Your task to perform on an android device: Show the shopping cart on walmart. Search for "asus zenbook" on walmart, select the first entry, and add it to the cart. Image 0: 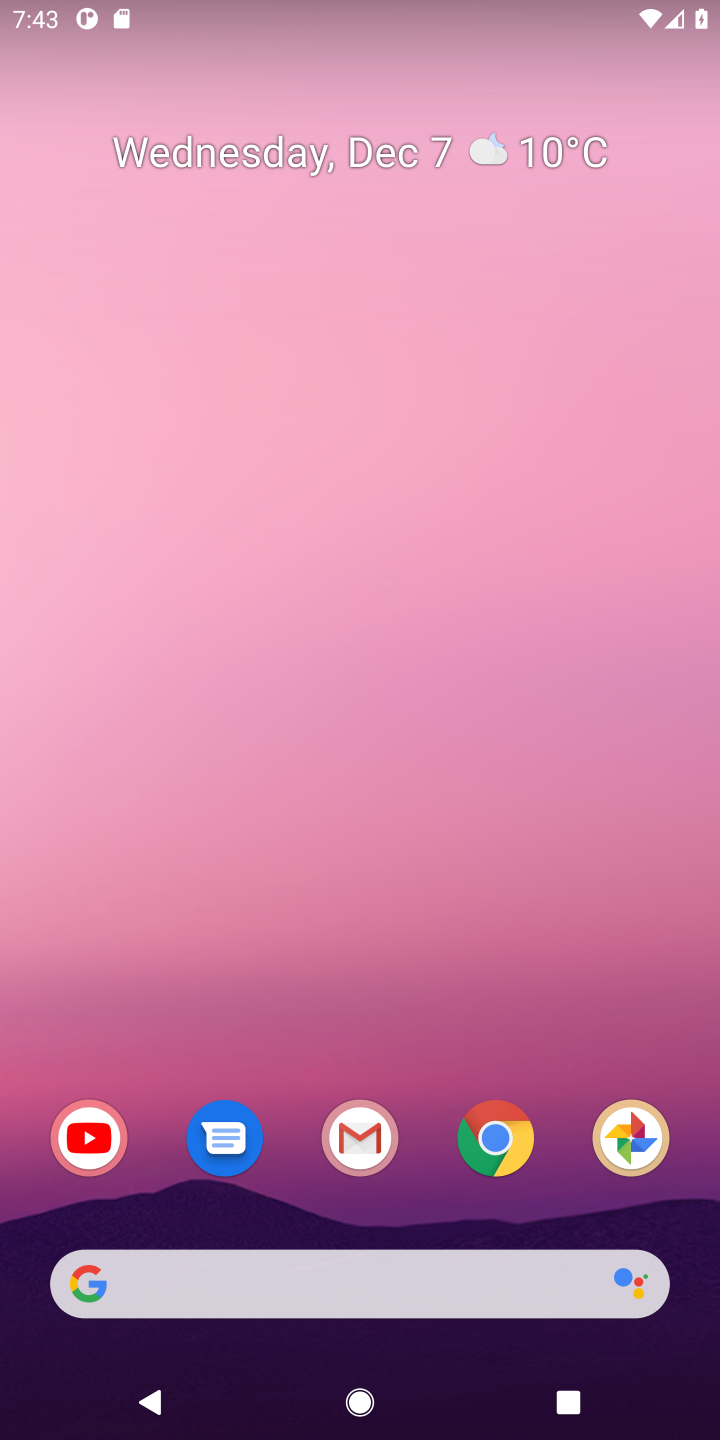
Step 0: click (217, 1275)
Your task to perform on an android device: Show the shopping cart on walmart. Search for "asus zenbook" on walmart, select the first entry, and add it to the cart. Image 1: 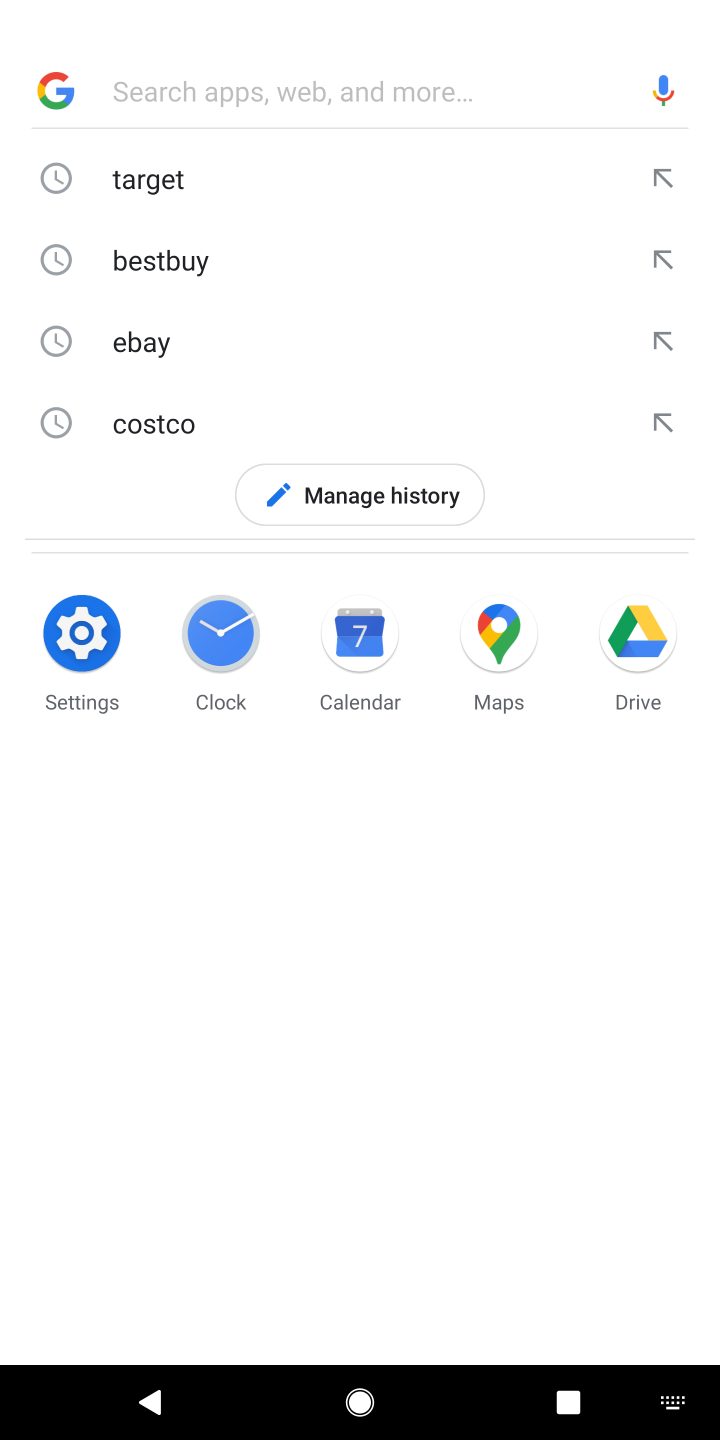
Step 1: type "walmart"
Your task to perform on an android device: Show the shopping cart on walmart. Search for "asus zenbook" on walmart, select the first entry, and add it to the cart. Image 2: 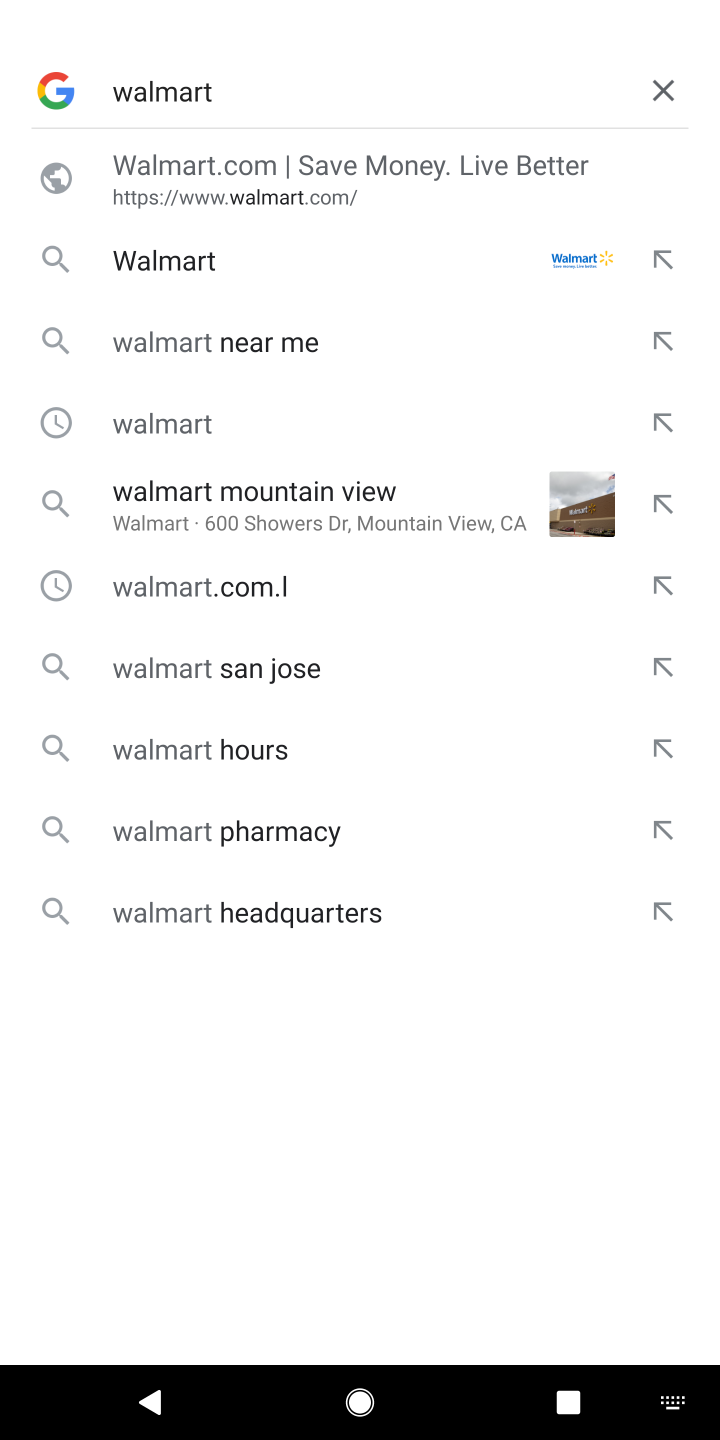
Step 2: press enter
Your task to perform on an android device: Show the shopping cart on walmart. Search for "asus zenbook" on walmart, select the first entry, and add it to the cart. Image 3: 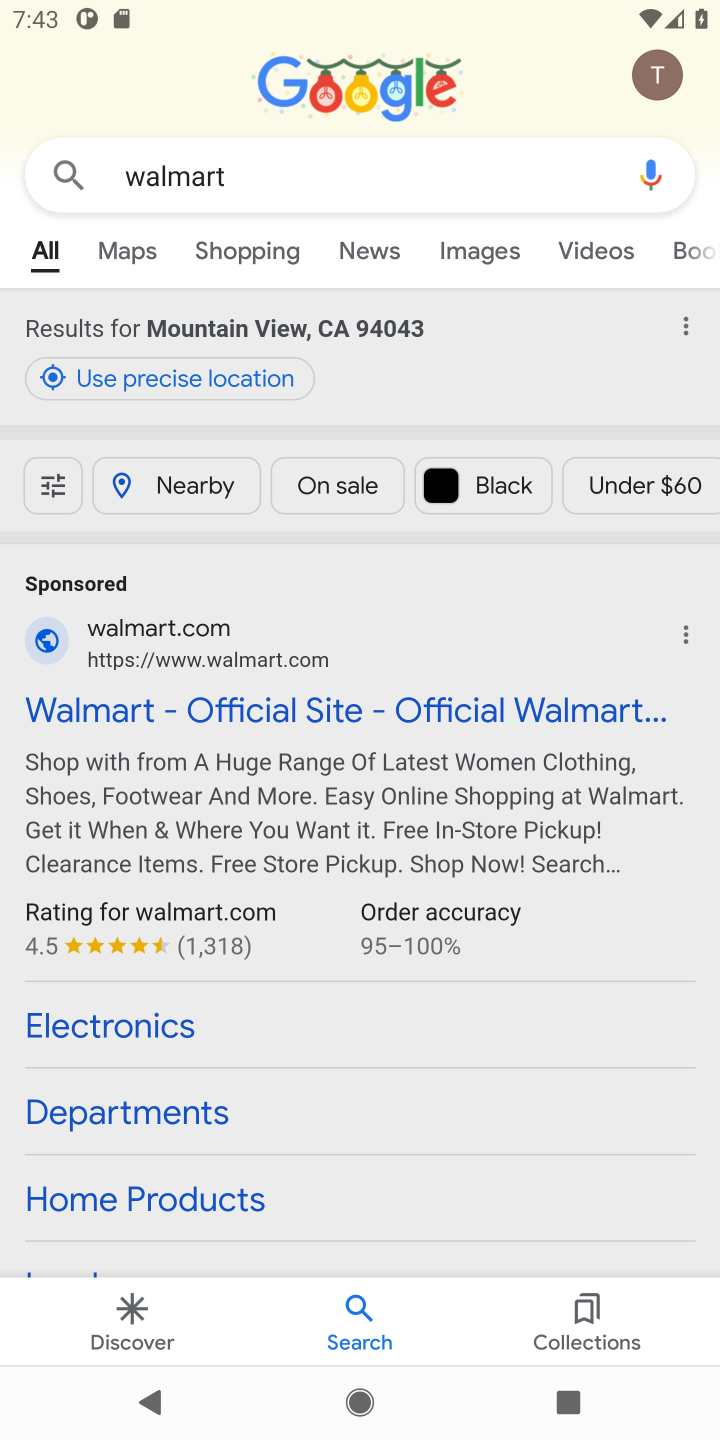
Step 3: click (407, 702)
Your task to perform on an android device: Show the shopping cart on walmart. Search for "asus zenbook" on walmart, select the first entry, and add it to the cart. Image 4: 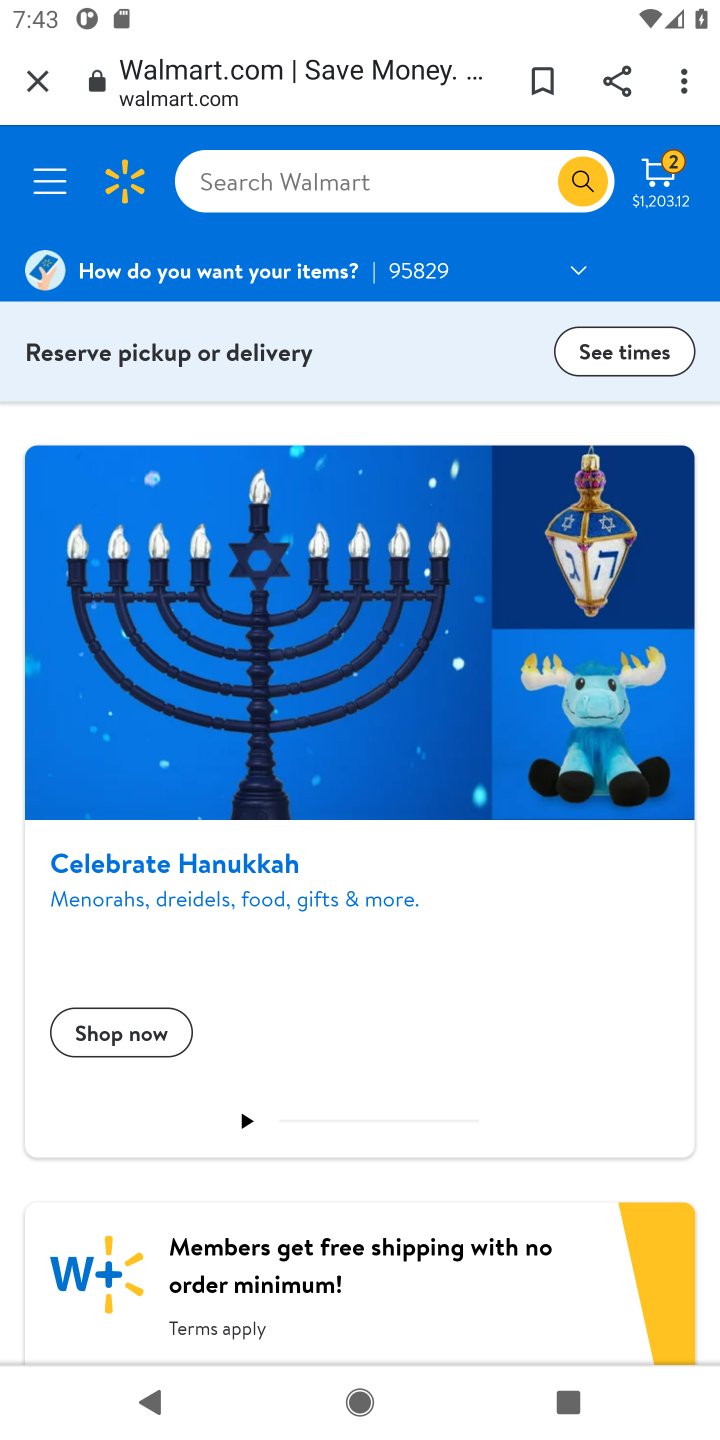
Step 4: click (664, 168)
Your task to perform on an android device: Show the shopping cart on walmart. Search for "asus zenbook" on walmart, select the first entry, and add it to the cart. Image 5: 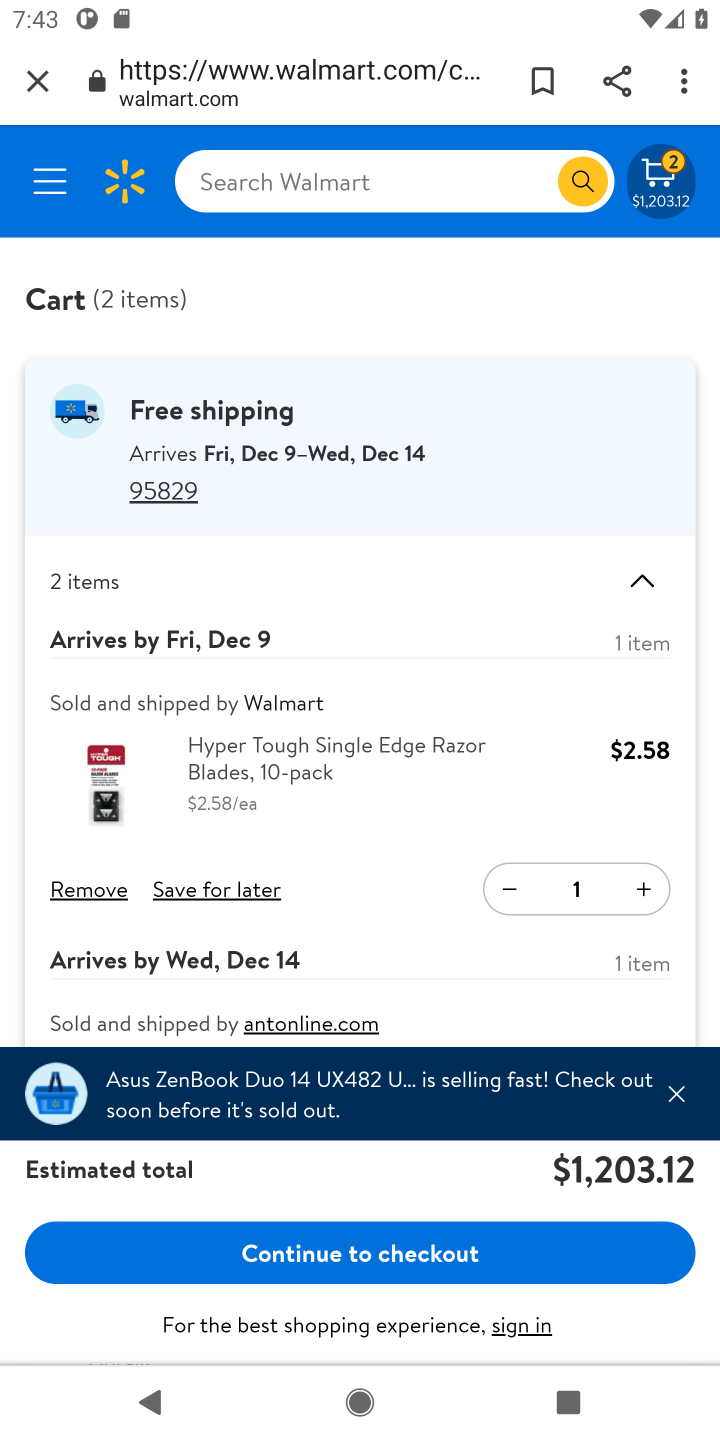
Step 5: click (237, 188)
Your task to perform on an android device: Show the shopping cart on walmart. Search for "asus zenbook" on walmart, select the first entry, and add it to the cart. Image 6: 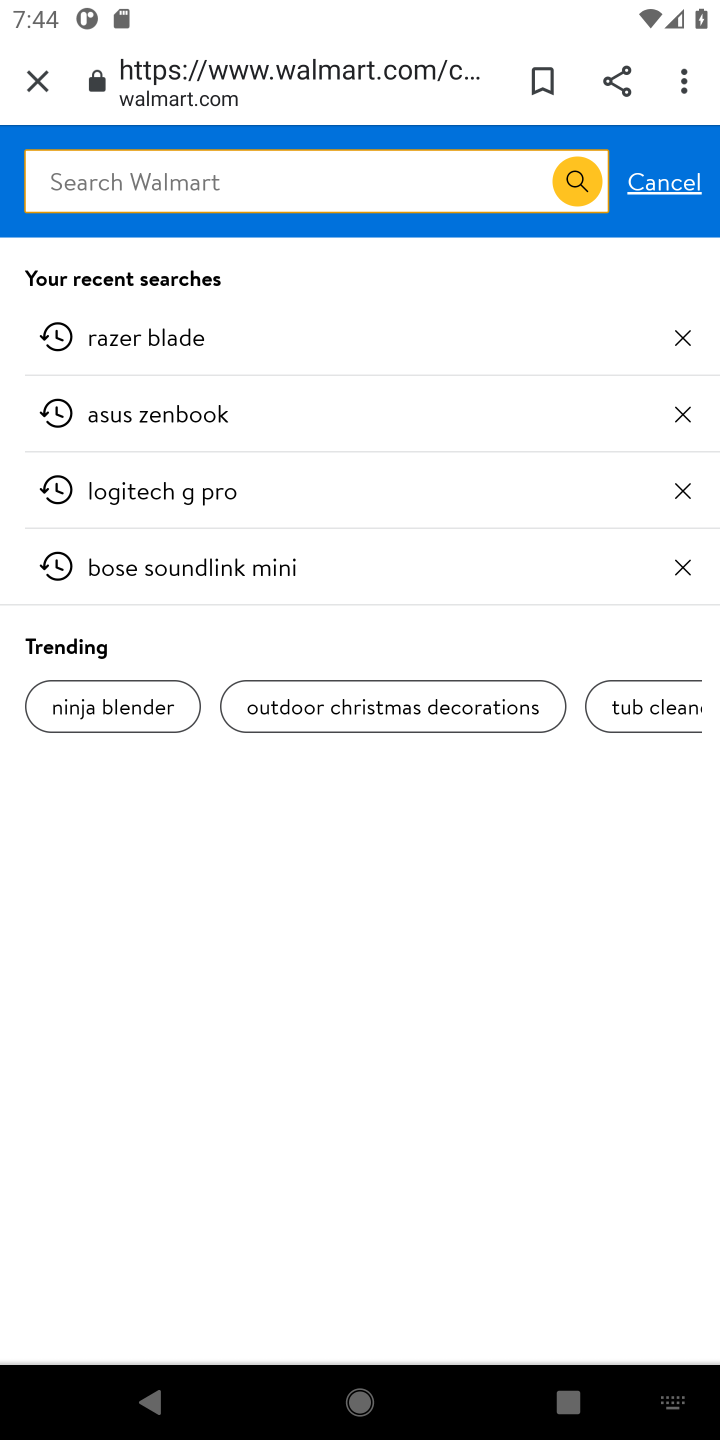
Step 6: type "asus zenbook"
Your task to perform on an android device: Show the shopping cart on walmart. Search for "asus zenbook" on walmart, select the first entry, and add it to the cart. Image 7: 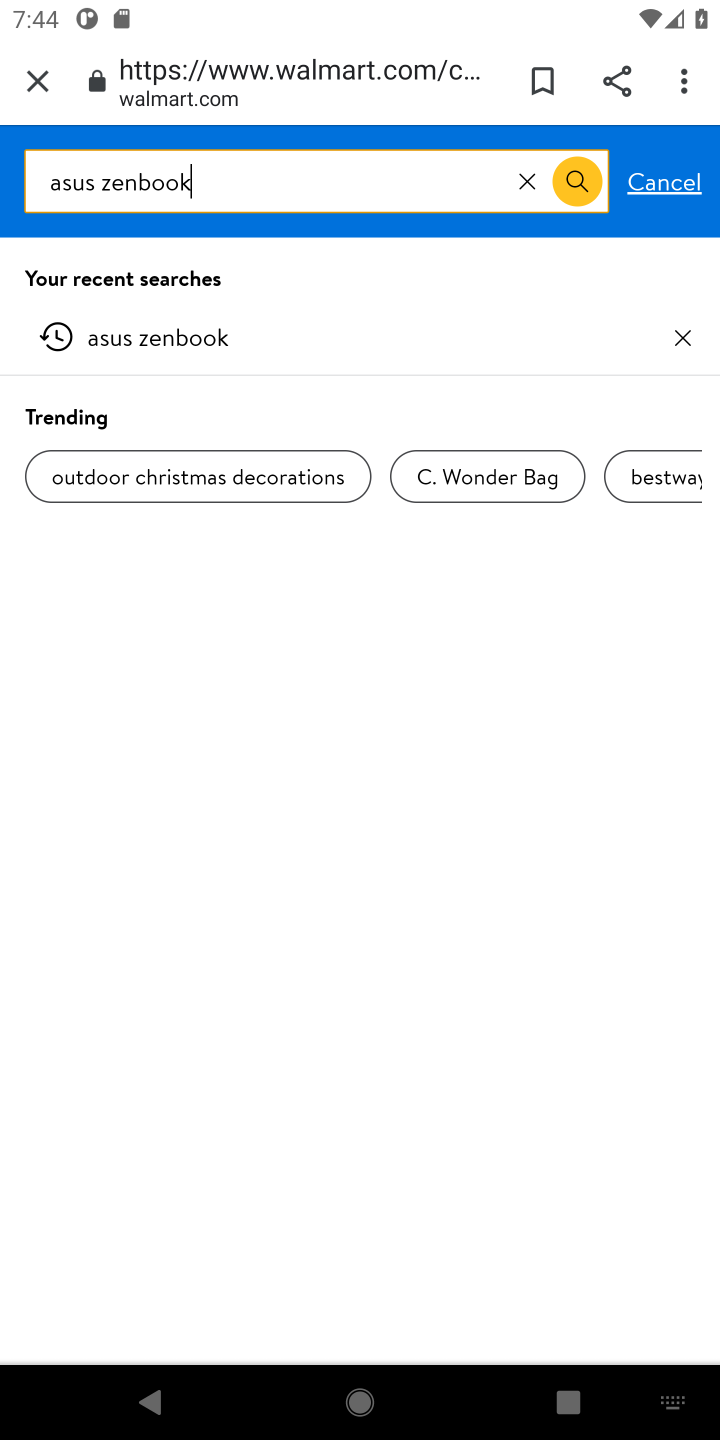
Step 7: press enter
Your task to perform on an android device: Show the shopping cart on walmart. Search for "asus zenbook" on walmart, select the first entry, and add it to the cart. Image 8: 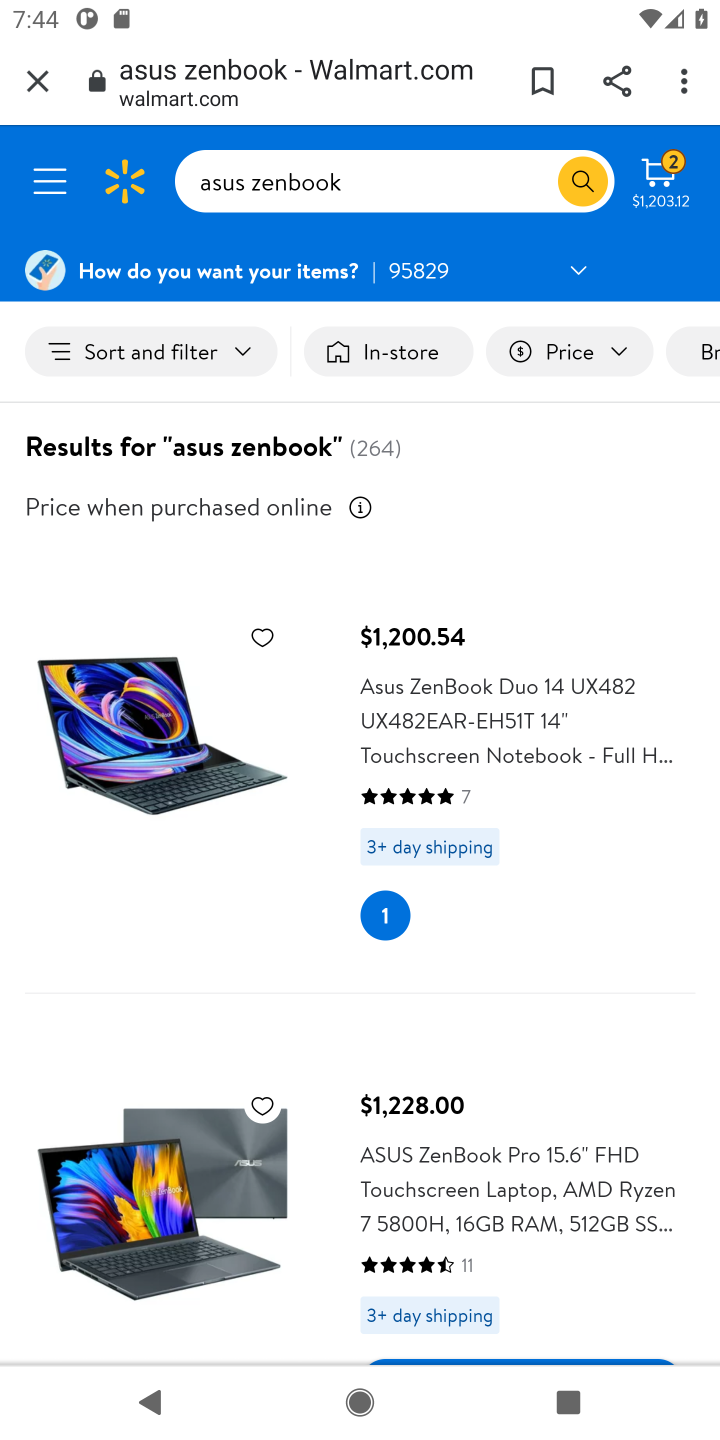
Step 8: click (452, 691)
Your task to perform on an android device: Show the shopping cart on walmart. Search for "asus zenbook" on walmart, select the first entry, and add it to the cart. Image 9: 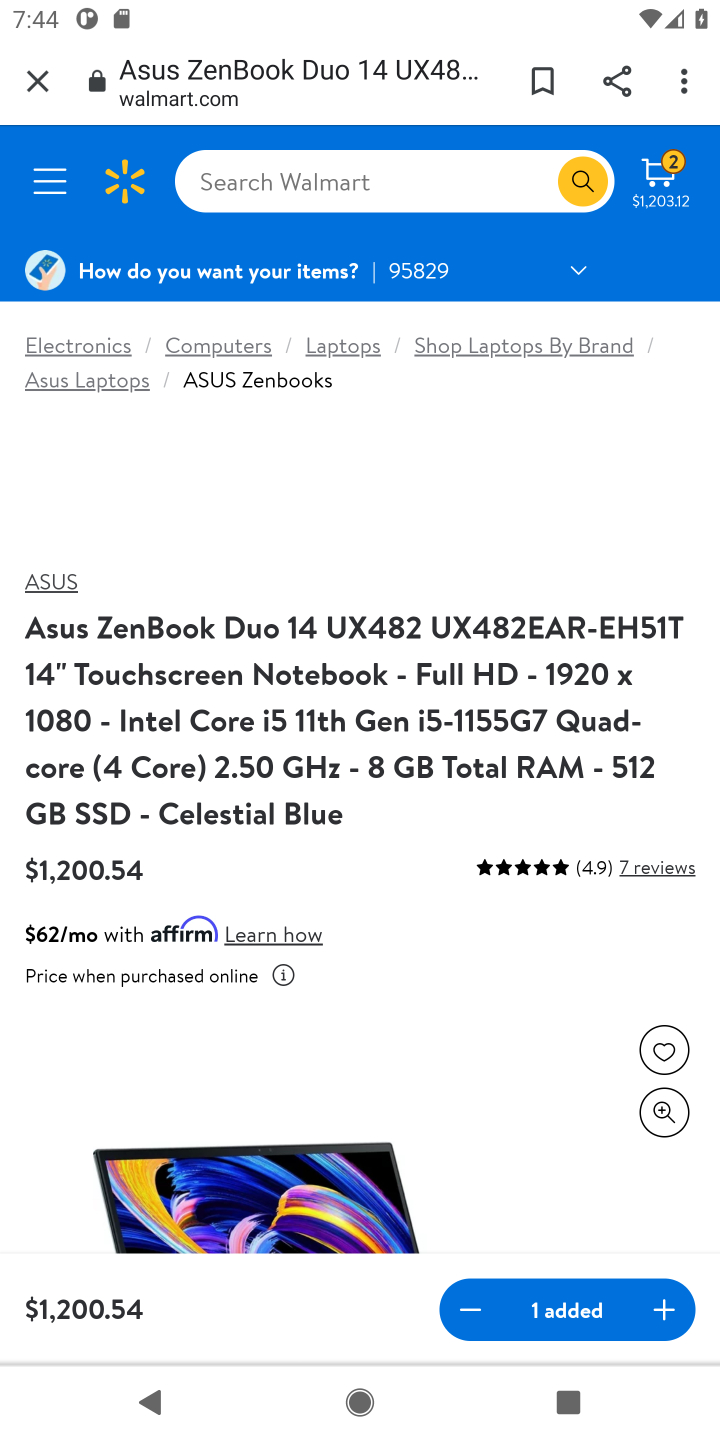
Step 9: click (564, 1306)
Your task to perform on an android device: Show the shopping cart on walmart. Search for "asus zenbook" on walmart, select the first entry, and add it to the cart. Image 10: 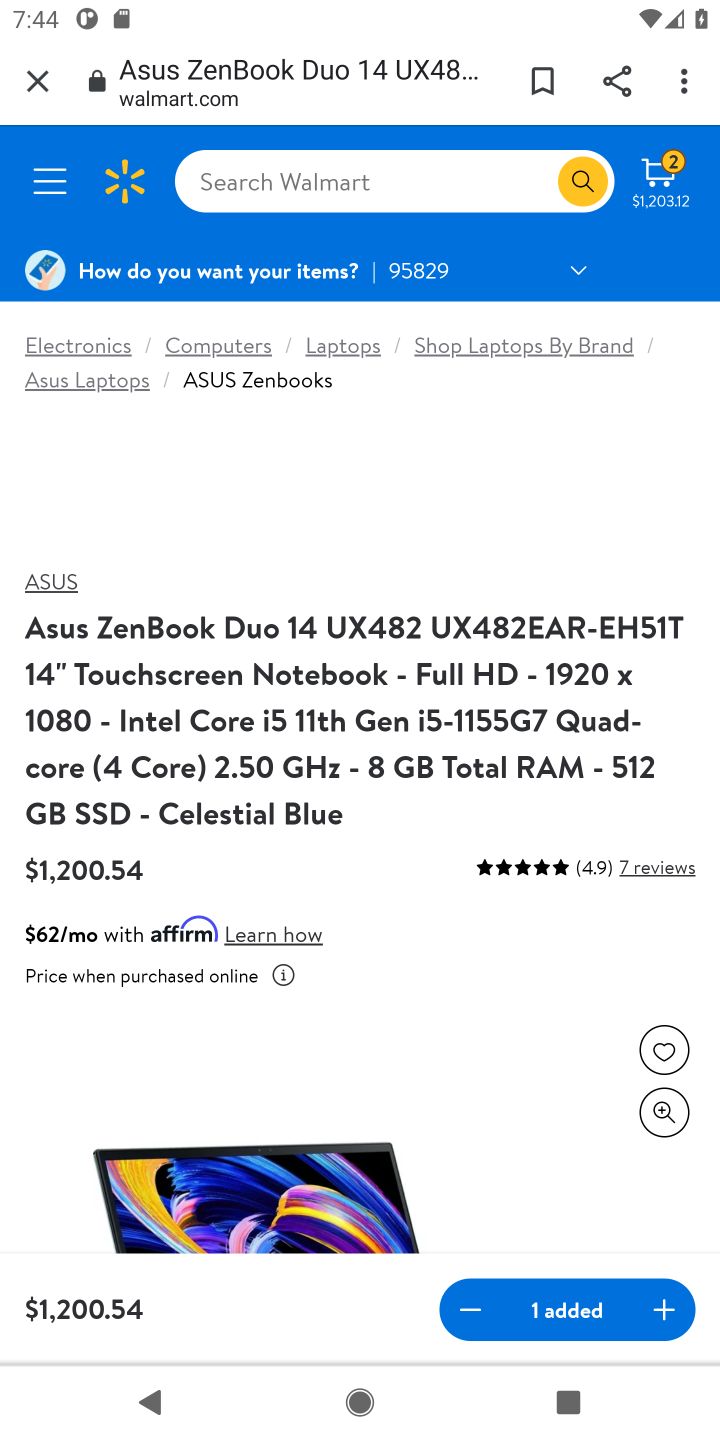
Step 10: click (588, 1318)
Your task to perform on an android device: Show the shopping cart on walmart. Search for "asus zenbook" on walmart, select the first entry, and add it to the cart. Image 11: 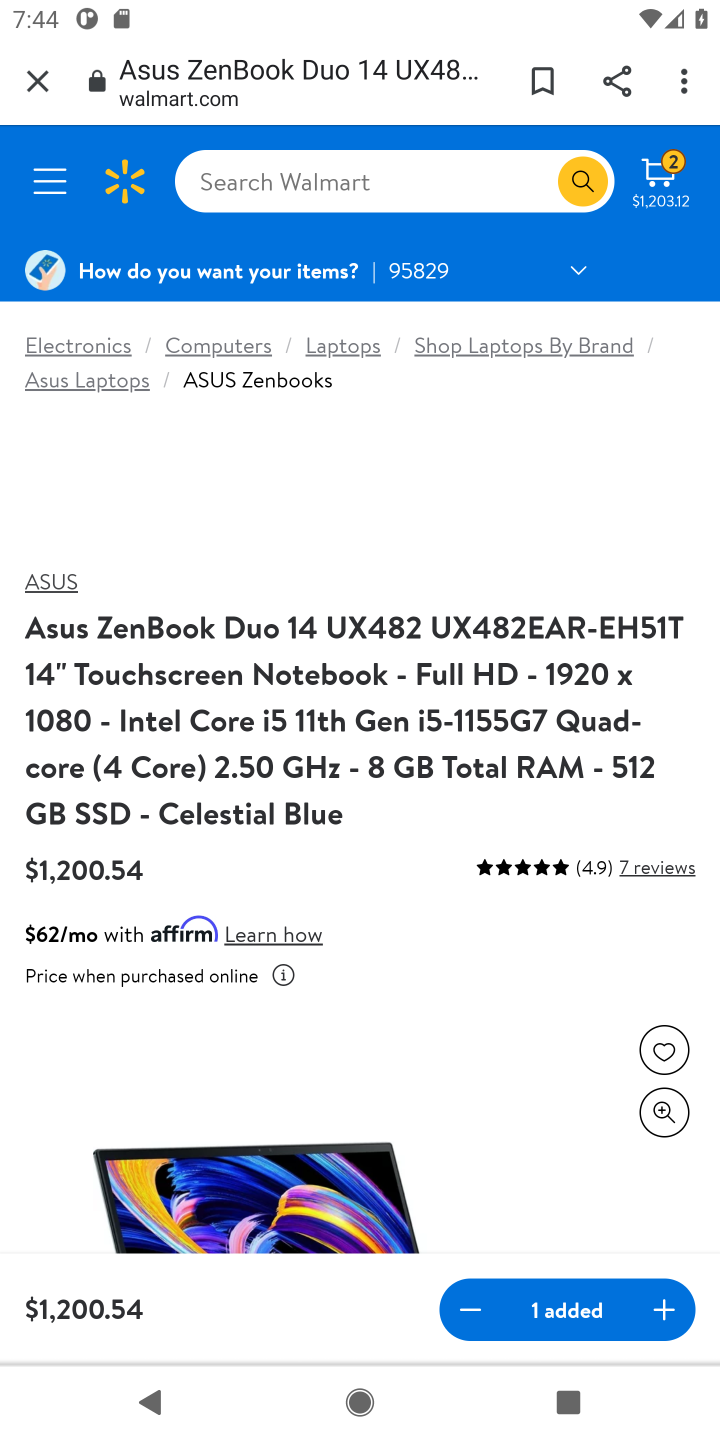
Step 11: drag from (482, 981) to (537, 380)
Your task to perform on an android device: Show the shopping cart on walmart. Search for "asus zenbook" on walmart, select the first entry, and add it to the cart. Image 12: 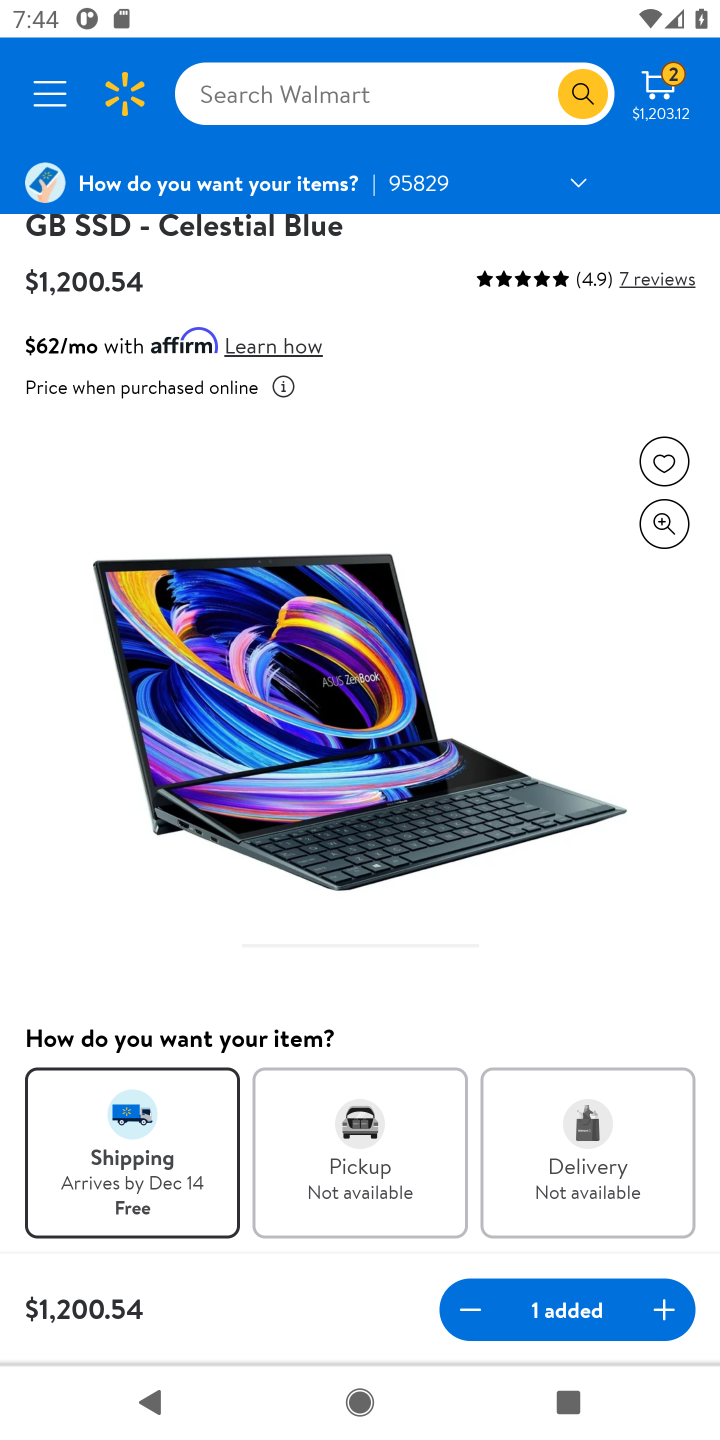
Step 12: click (580, 1316)
Your task to perform on an android device: Show the shopping cart on walmart. Search for "asus zenbook" on walmart, select the first entry, and add it to the cart. Image 13: 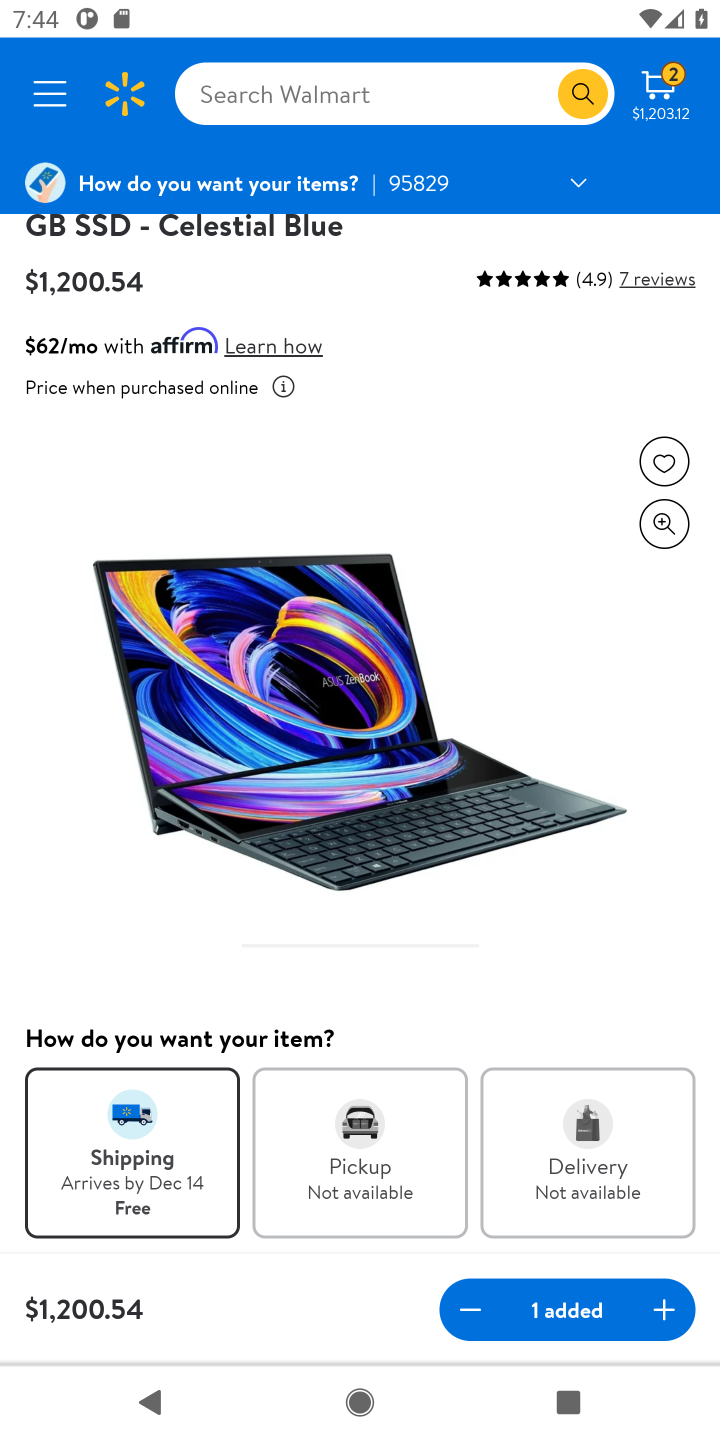
Step 13: click (551, 1319)
Your task to perform on an android device: Show the shopping cart on walmart. Search for "asus zenbook" on walmart, select the first entry, and add it to the cart. Image 14: 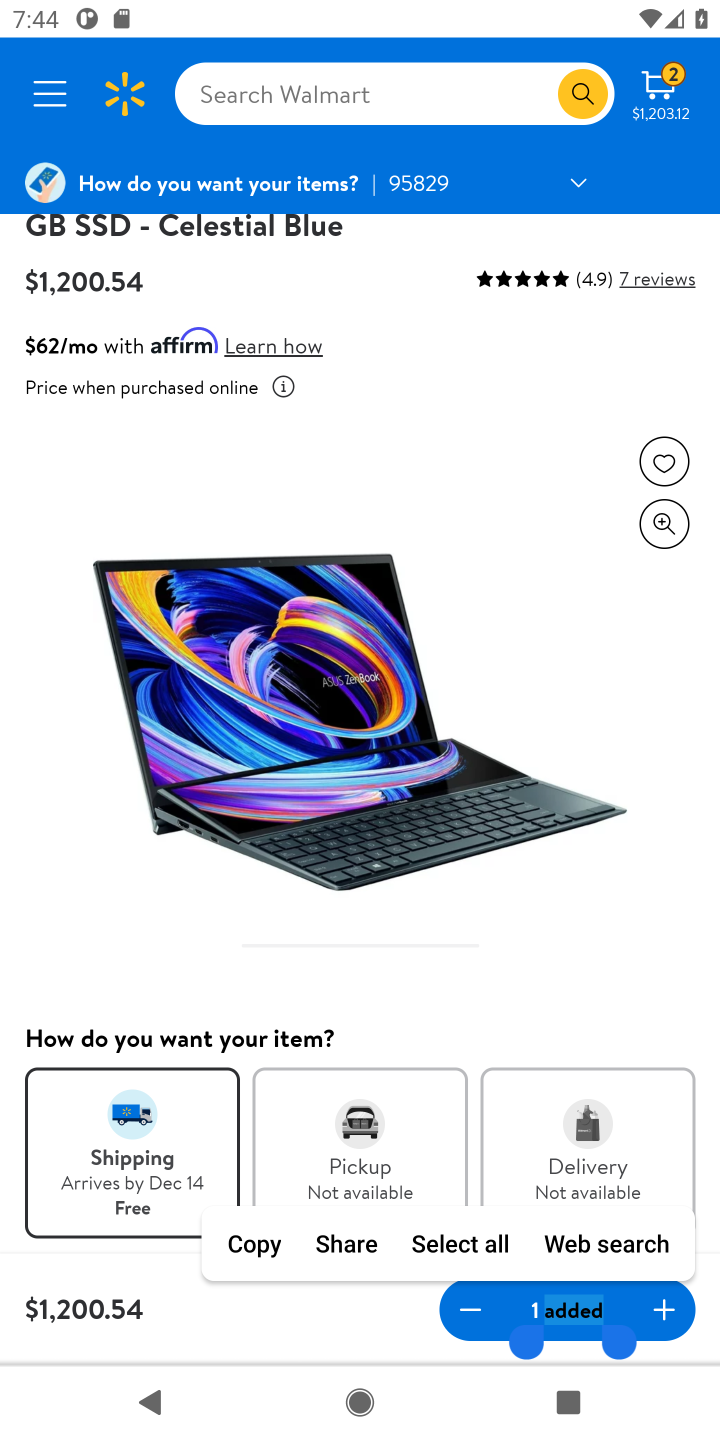
Step 14: task complete